Your task to perform on an android device: Open settings on Google Maps Image 0: 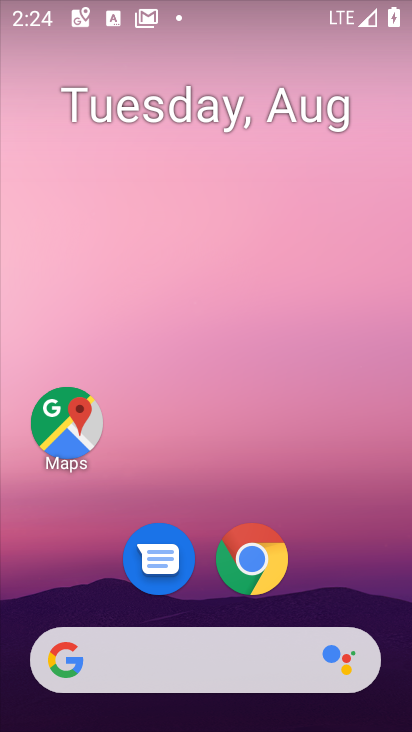
Step 0: click (78, 424)
Your task to perform on an android device: Open settings on Google Maps Image 1: 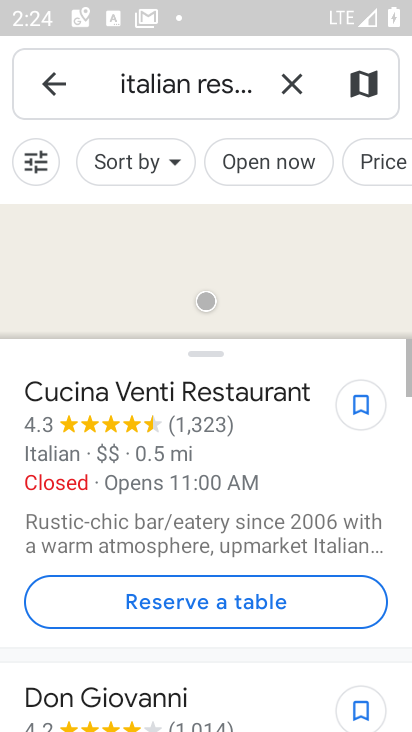
Step 1: click (44, 75)
Your task to perform on an android device: Open settings on Google Maps Image 2: 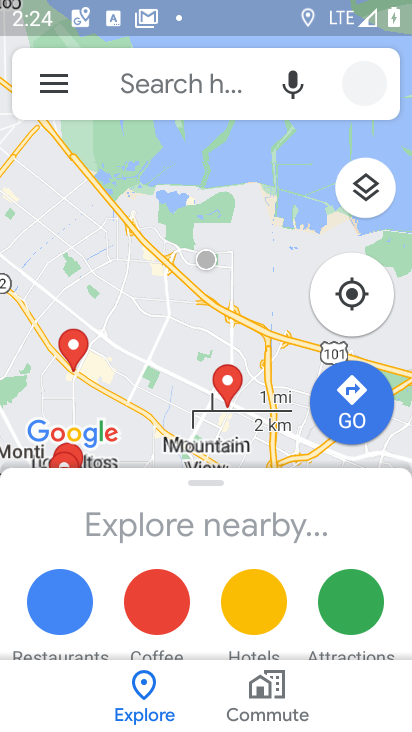
Step 2: click (49, 81)
Your task to perform on an android device: Open settings on Google Maps Image 3: 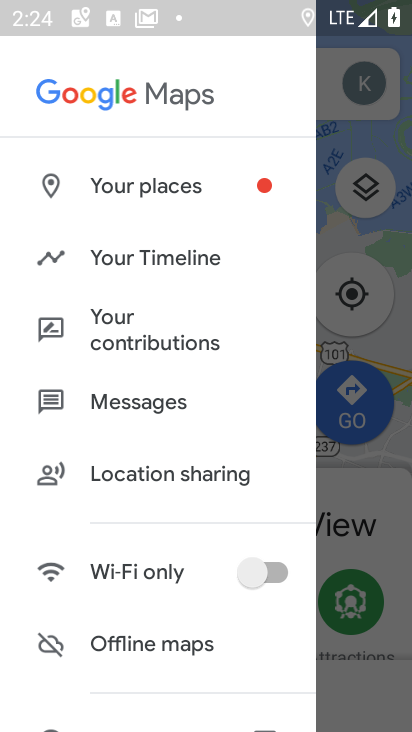
Step 3: drag from (123, 637) to (140, 228)
Your task to perform on an android device: Open settings on Google Maps Image 4: 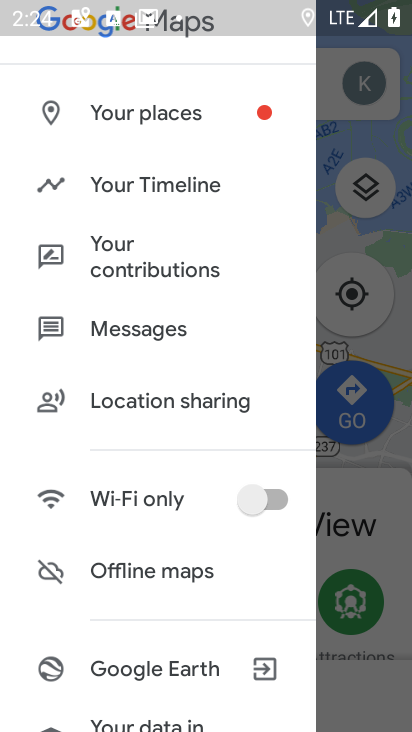
Step 4: drag from (143, 597) to (93, 172)
Your task to perform on an android device: Open settings on Google Maps Image 5: 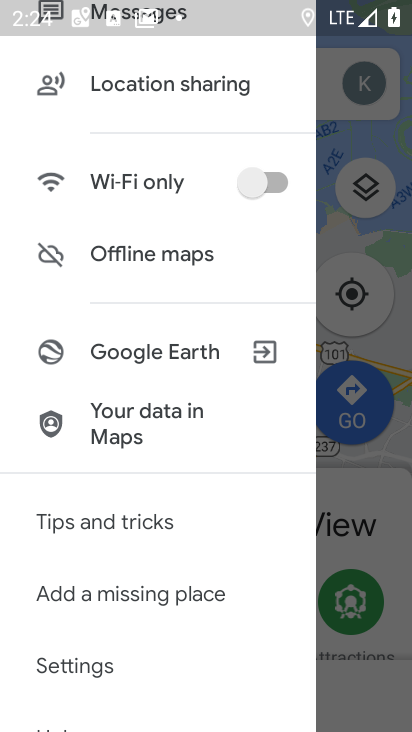
Step 5: click (74, 657)
Your task to perform on an android device: Open settings on Google Maps Image 6: 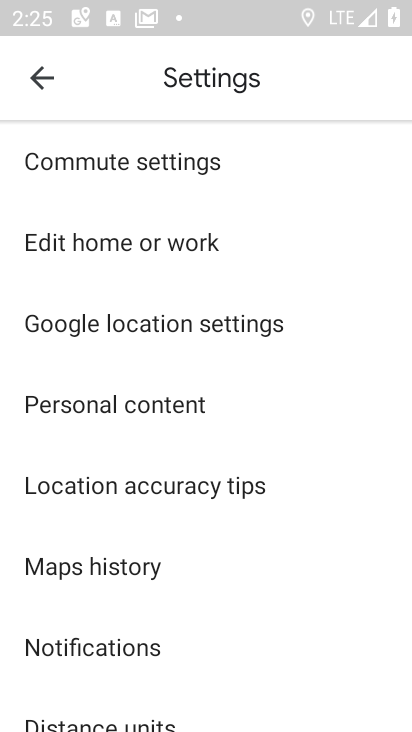
Step 6: task complete